Your task to perform on an android device: turn on translation in the chrome app Image 0: 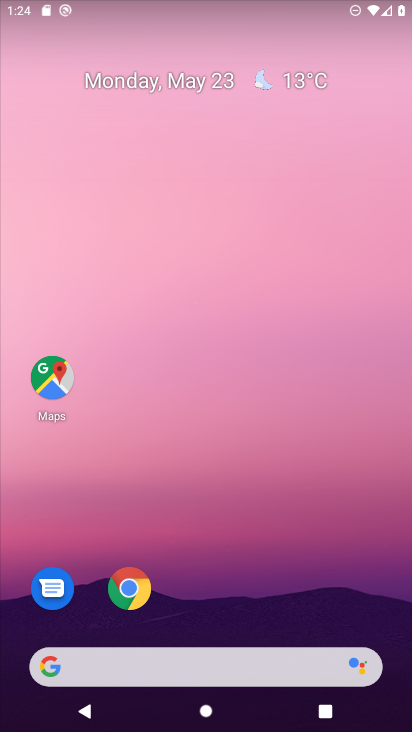
Step 0: click (132, 596)
Your task to perform on an android device: turn on translation in the chrome app Image 1: 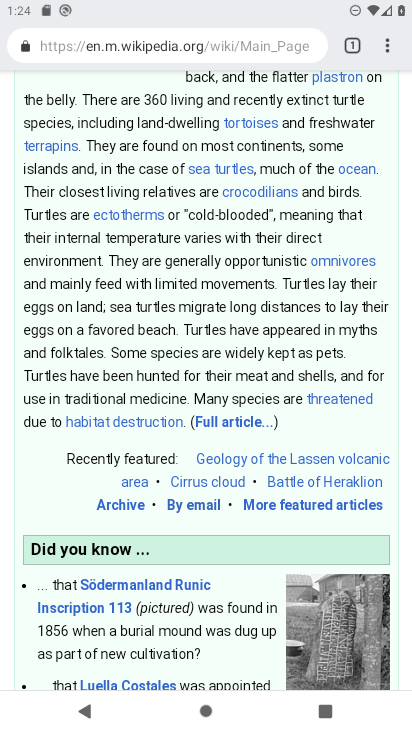
Step 1: click (388, 46)
Your task to perform on an android device: turn on translation in the chrome app Image 2: 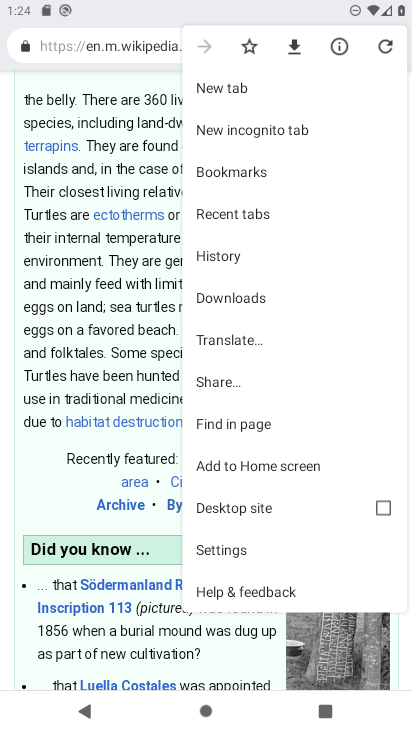
Step 2: click (388, 46)
Your task to perform on an android device: turn on translation in the chrome app Image 3: 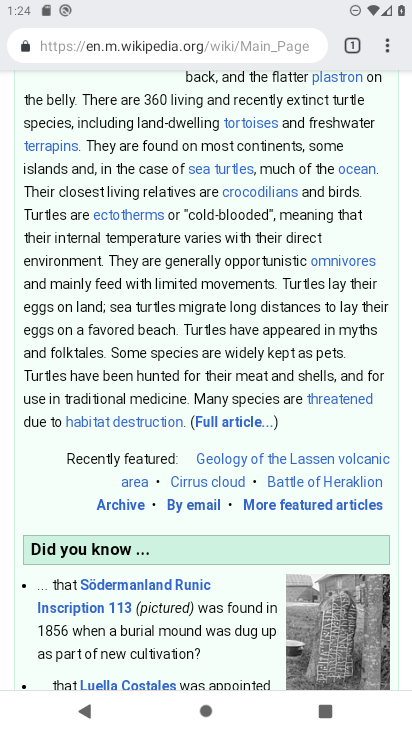
Step 3: click (219, 548)
Your task to perform on an android device: turn on translation in the chrome app Image 4: 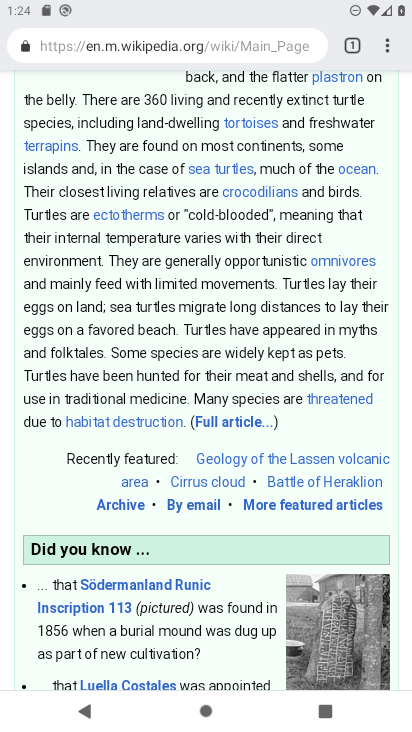
Step 4: click (385, 53)
Your task to perform on an android device: turn on translation in the chrome app Image 5: 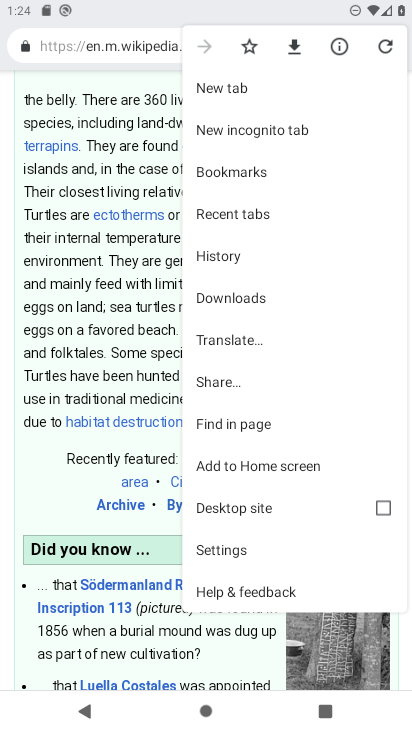
Step 5: click (239, 550)
Your task to perform on an android device: turn on translation in the chrome app Image 6: 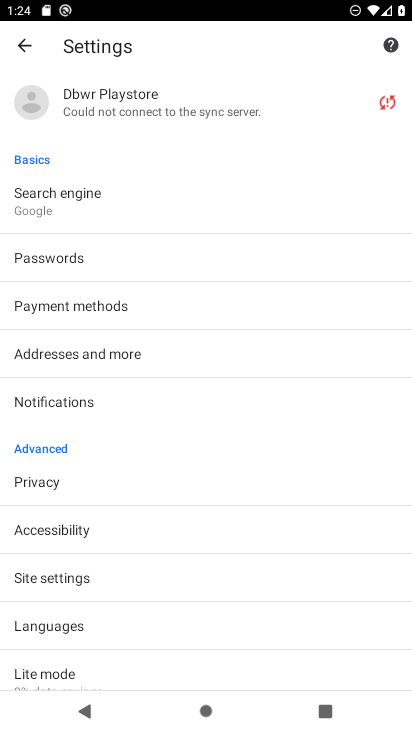
Step 6: click (35, 633)
Your task to perform on an android device: turn on translation in the chrome app Image 7: 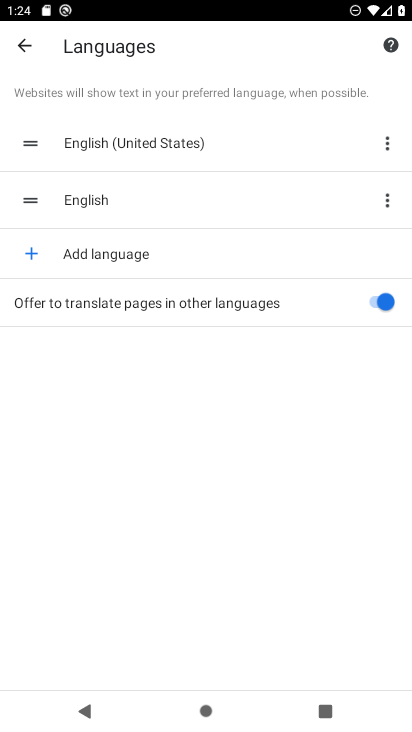
Step 7: task complete